Your task to perform on an android device: Open calendar and show me the second week of next month Image 0: 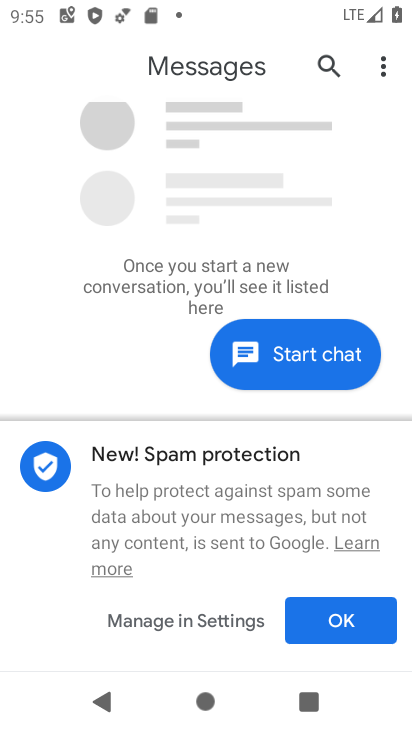
Step 0: press home button
Your task to perform on an android device: Open calendar and show me the second week of next month Image 1: 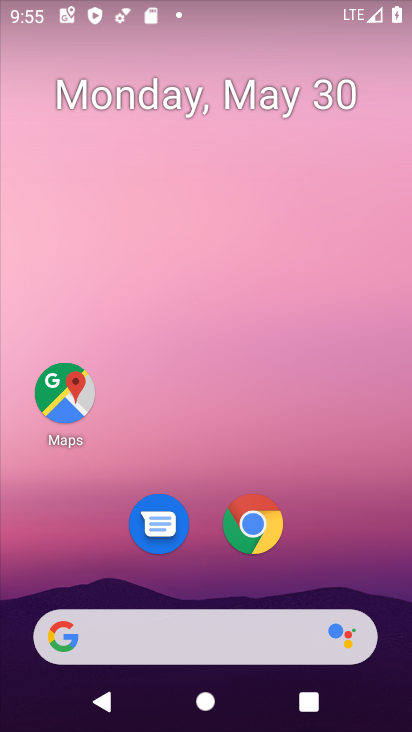
Step 1: drag from (252, 422) to (200, 1)
Your task to perform on an android device: Open calendar and show me the second week of next month Image 2: 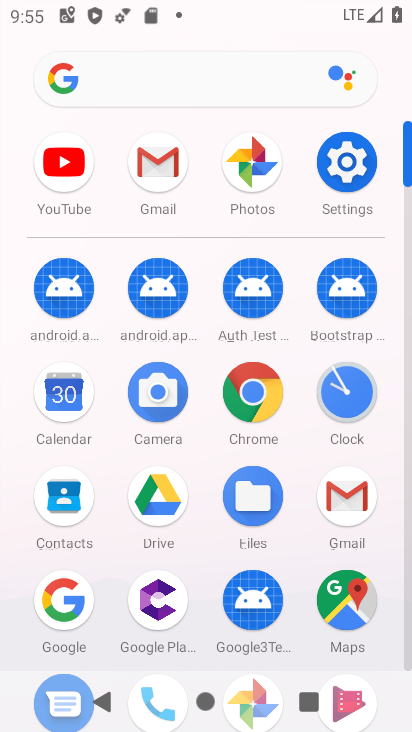
Step 2: click (70, 391)
Your task to perform on an android device: Open calendar and show me the second week of next month Image 3: 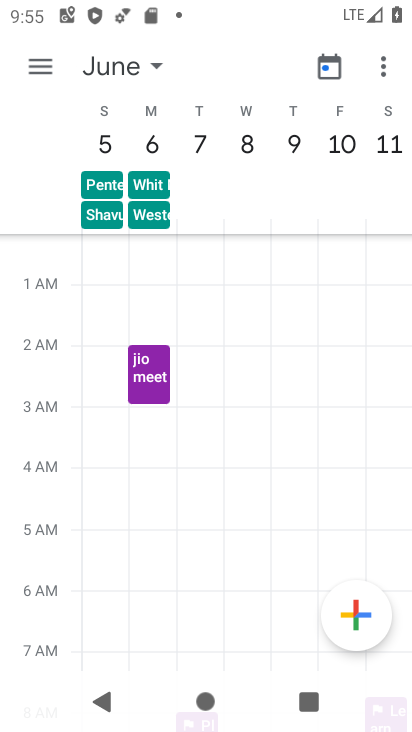
Step 3: task complete